Your task to perform on an android device: Show the shopping cart on ebay. Image 0: 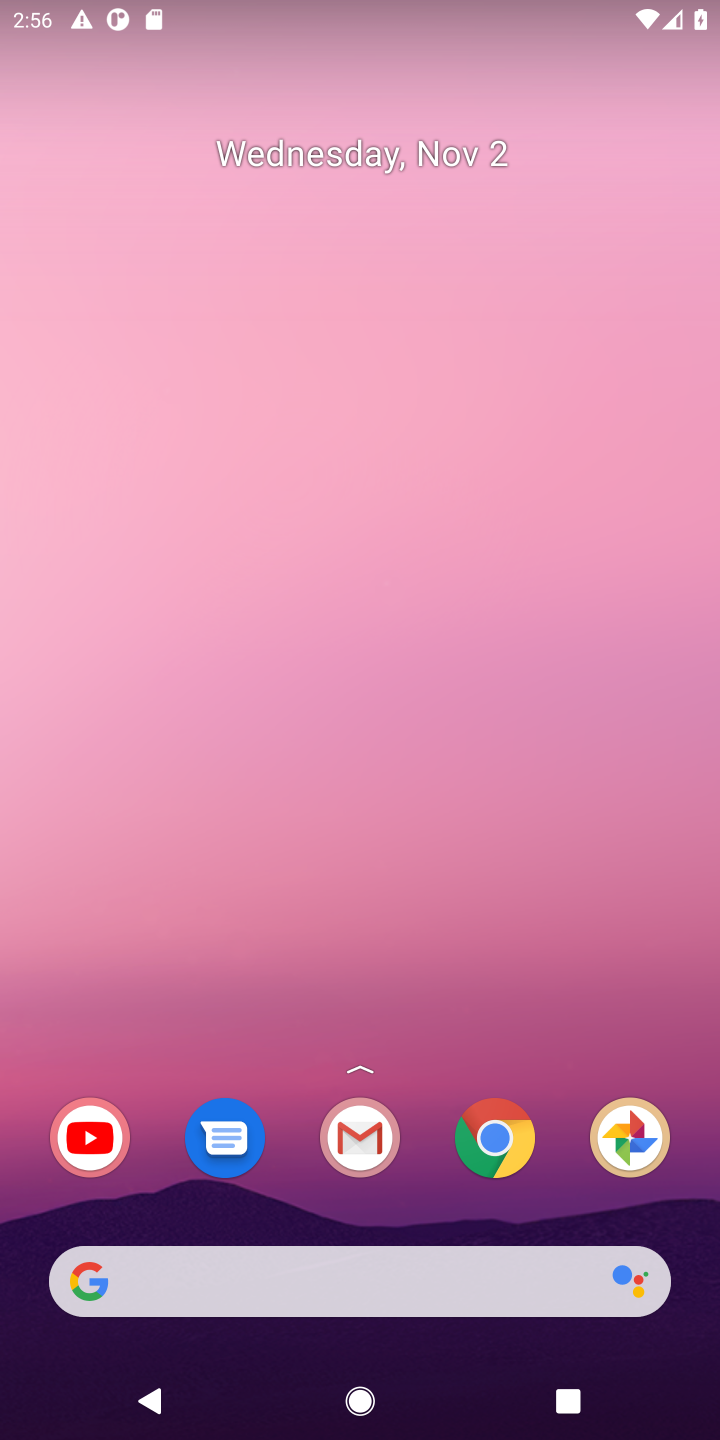
Step 0: press home button
Your task to perform on an android device: Show the shopping cart on ebay. Image 1: 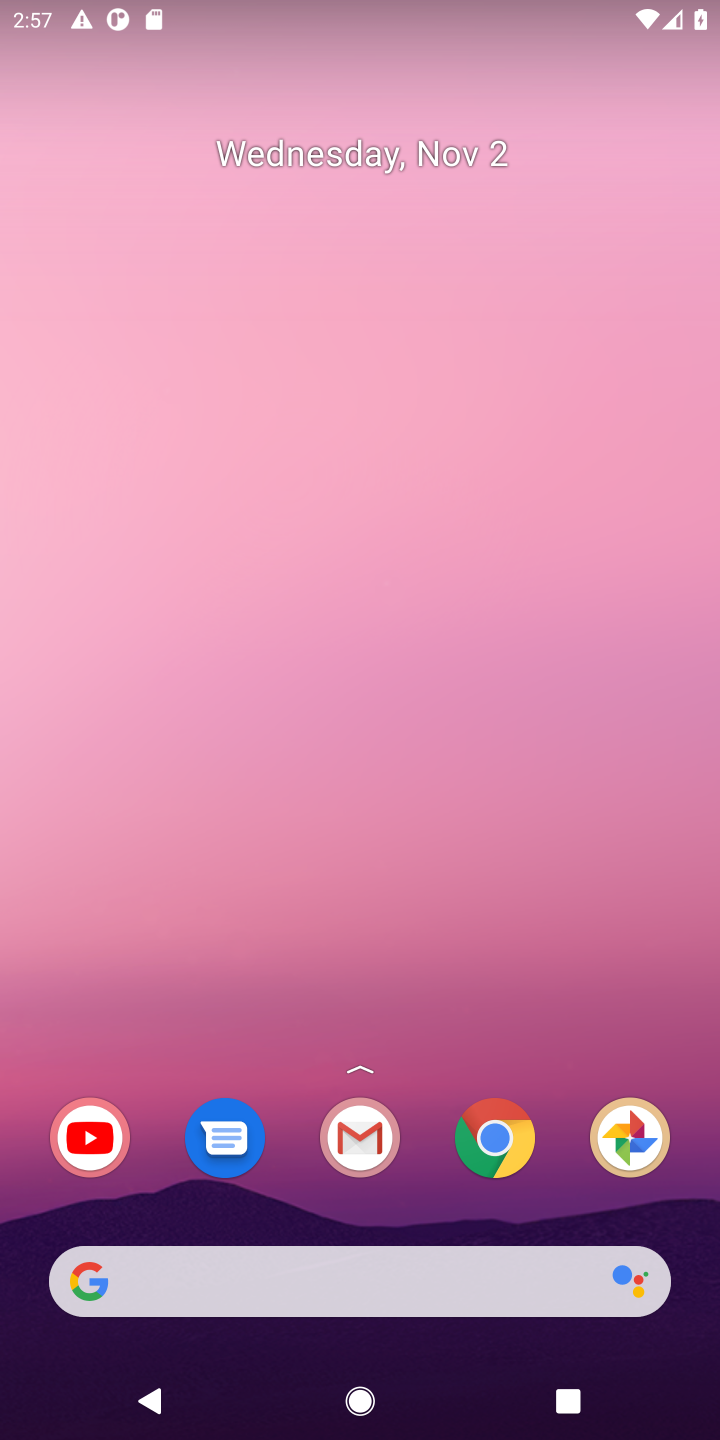
Step 1: click (158, 1274)
Your task to perform on an android device: Show the shopping cart on ebay. Image 2: 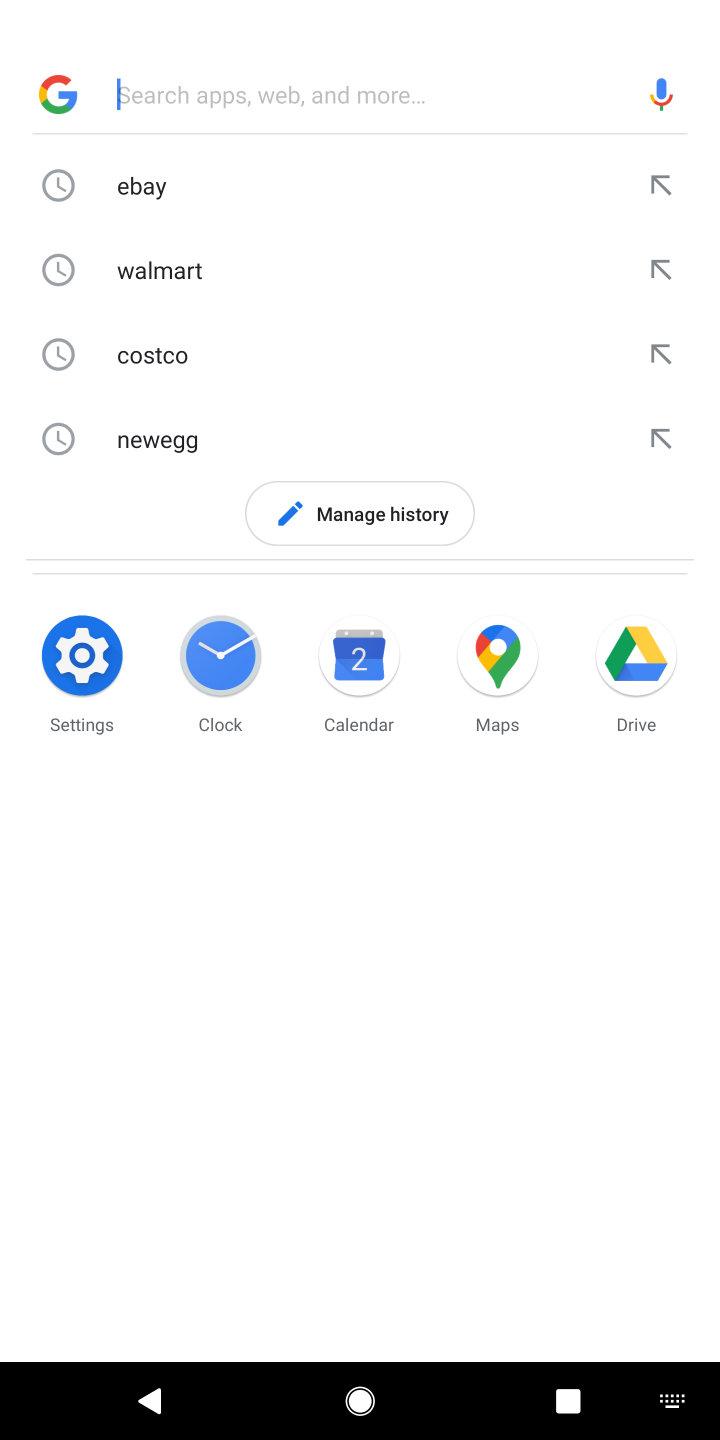
Step 2: type "ebay."
Your task to perform on an android device: Show the shopping cart on ebay. Image 3: 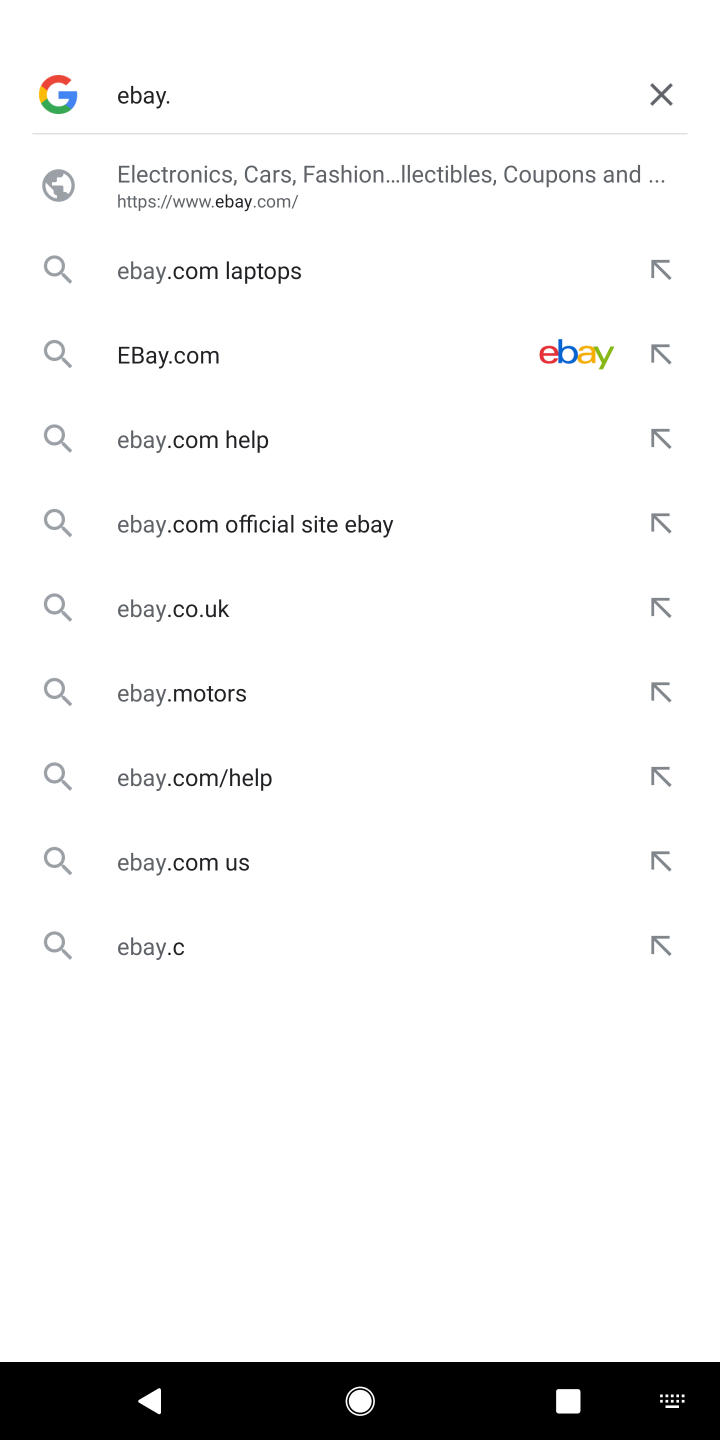
Step 3: press enter
Your task to perform on an android device: Show the shopping cart on ebay. Image 4: 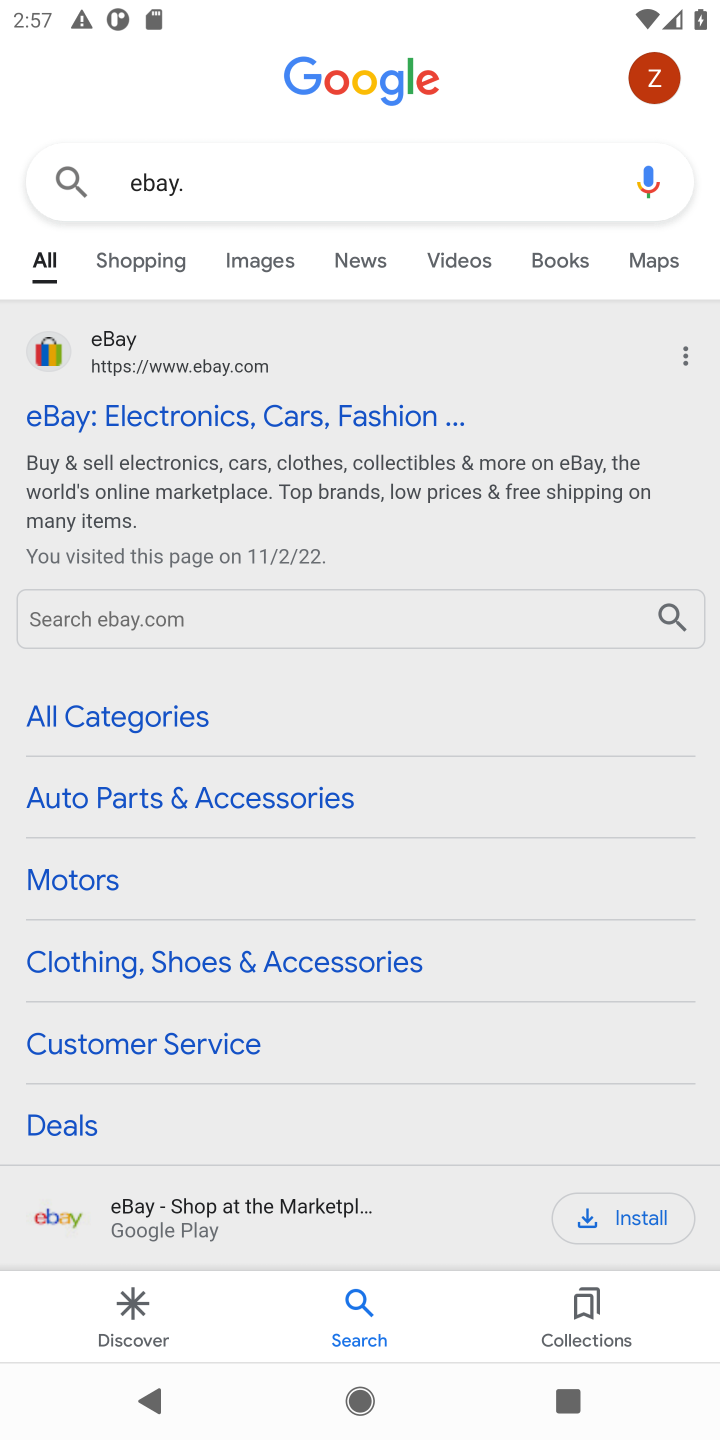
Step 4: click (227, 422)
Your task to perform on an android device: Show the shopping cart on ebay. Image 5: 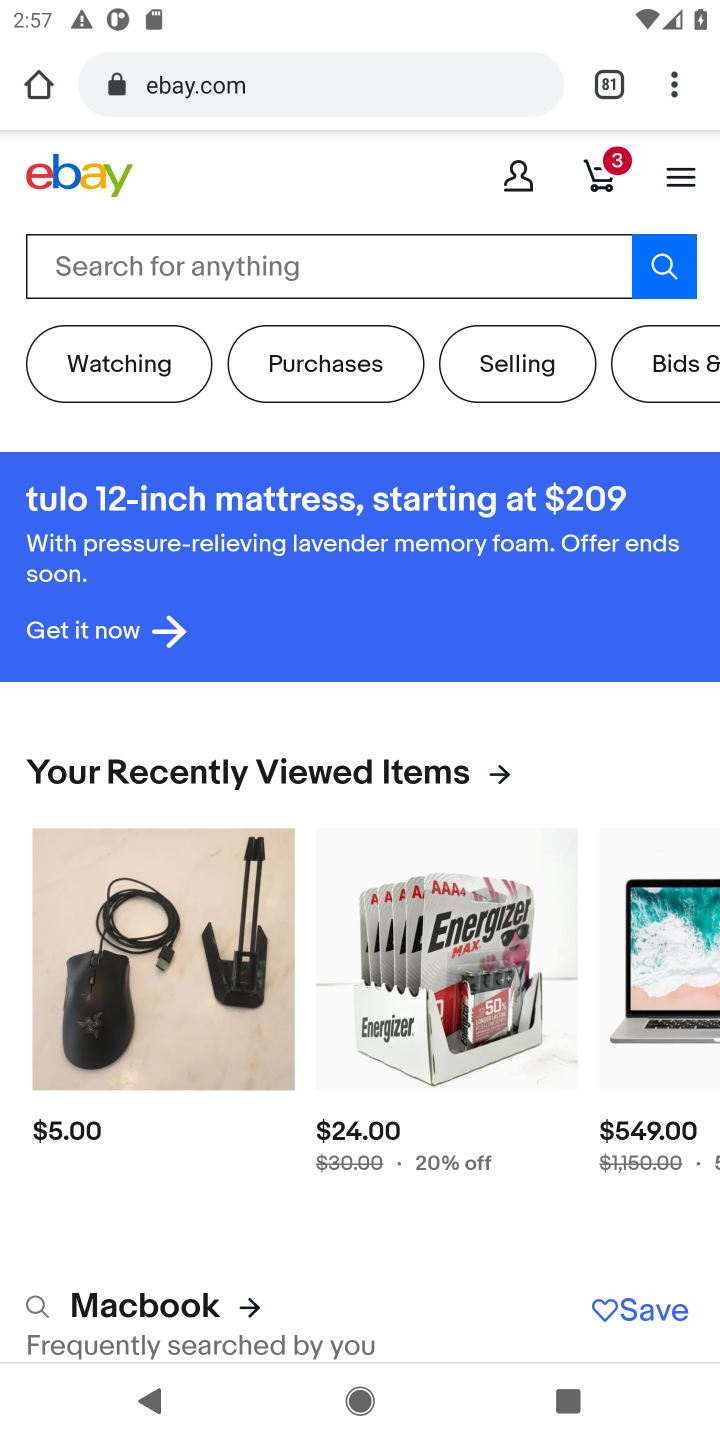
Step 5: click (605, 175)
Your task to perform on an android device: Show the shopping cart on ebay. Image 6: 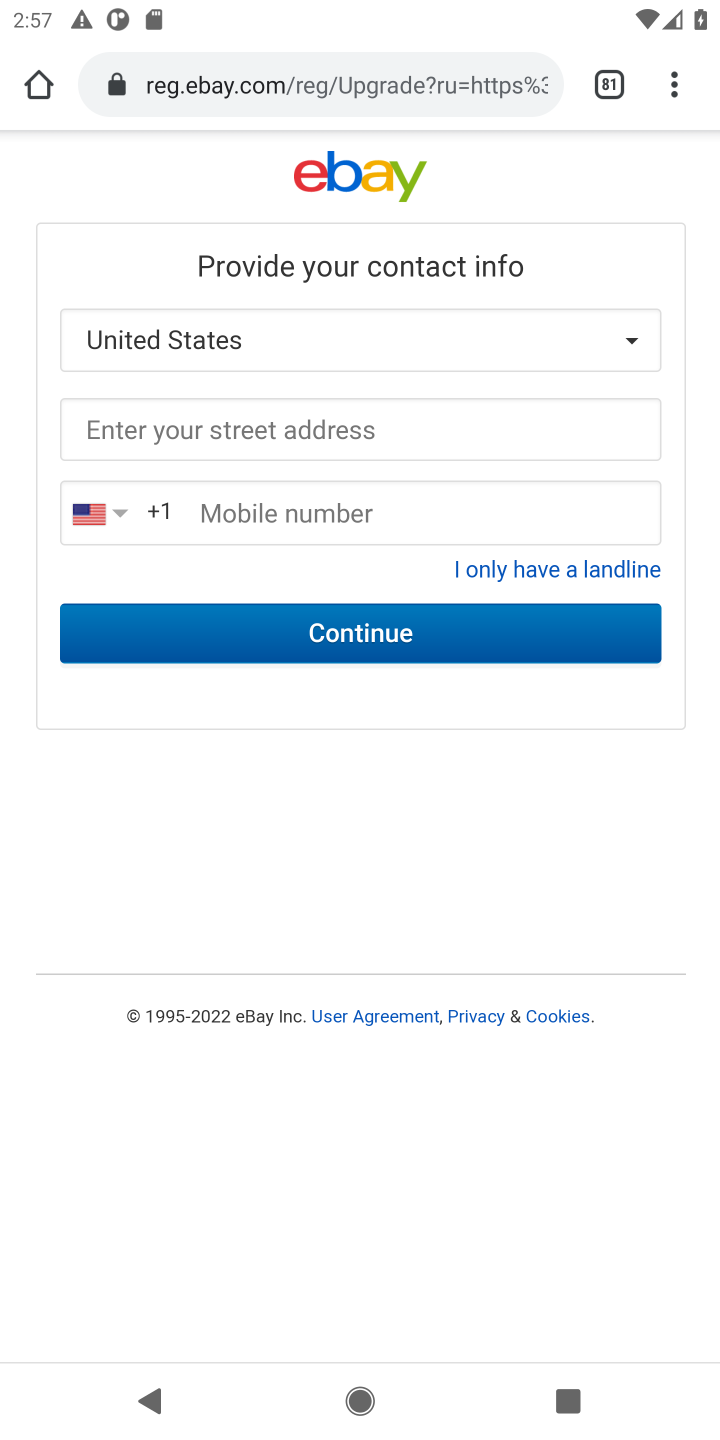
Step 6: task complete